Your task to perform on an android device: Go to Reddit.com Image 0: 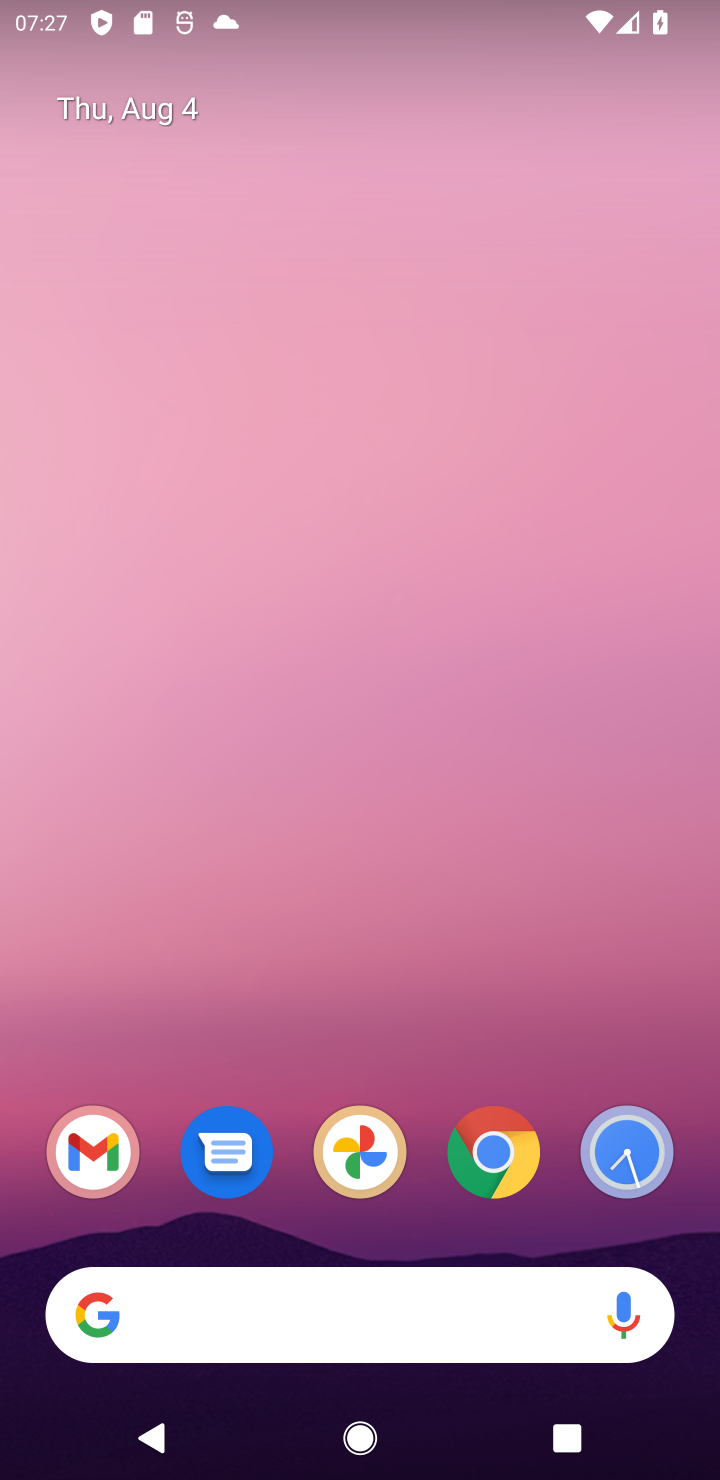
Step 0: click (501, 1156)
Your task to perform on an android device: Go to Reddit.com Image 1: 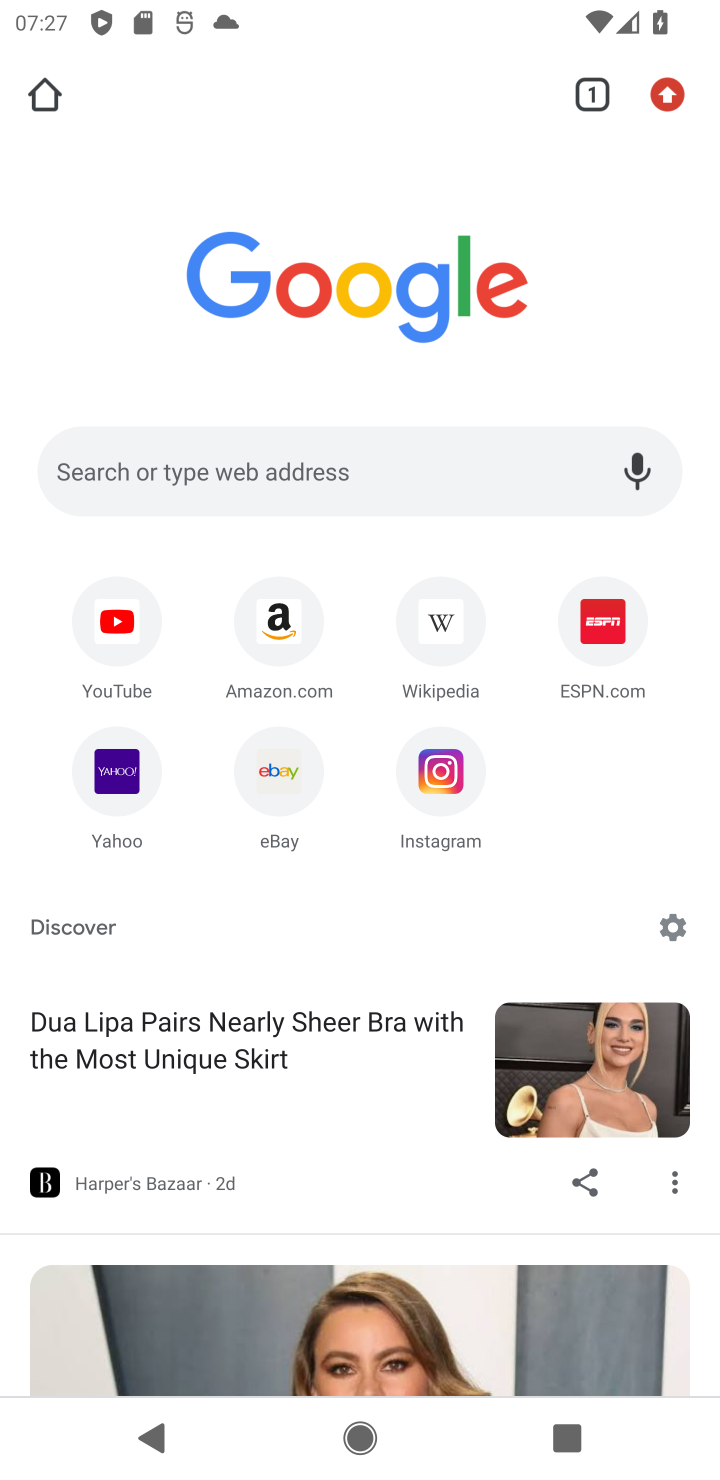
Step 1: click (389, 483)
Your task to perform on an android device: Go to Reddit.com Image 2: 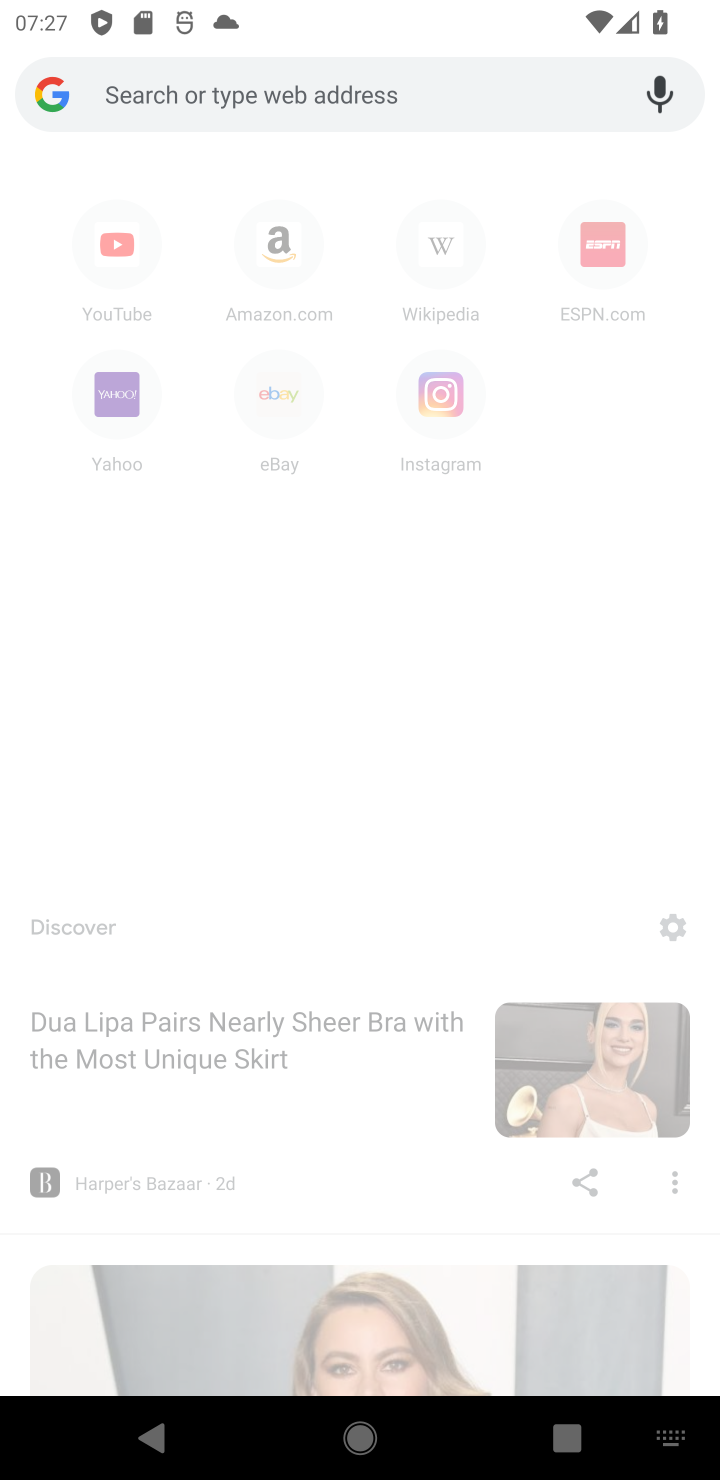
Step 2: type "Reddit.com"
Your task to perform on an android device: Go to Reddit.com Image 3: 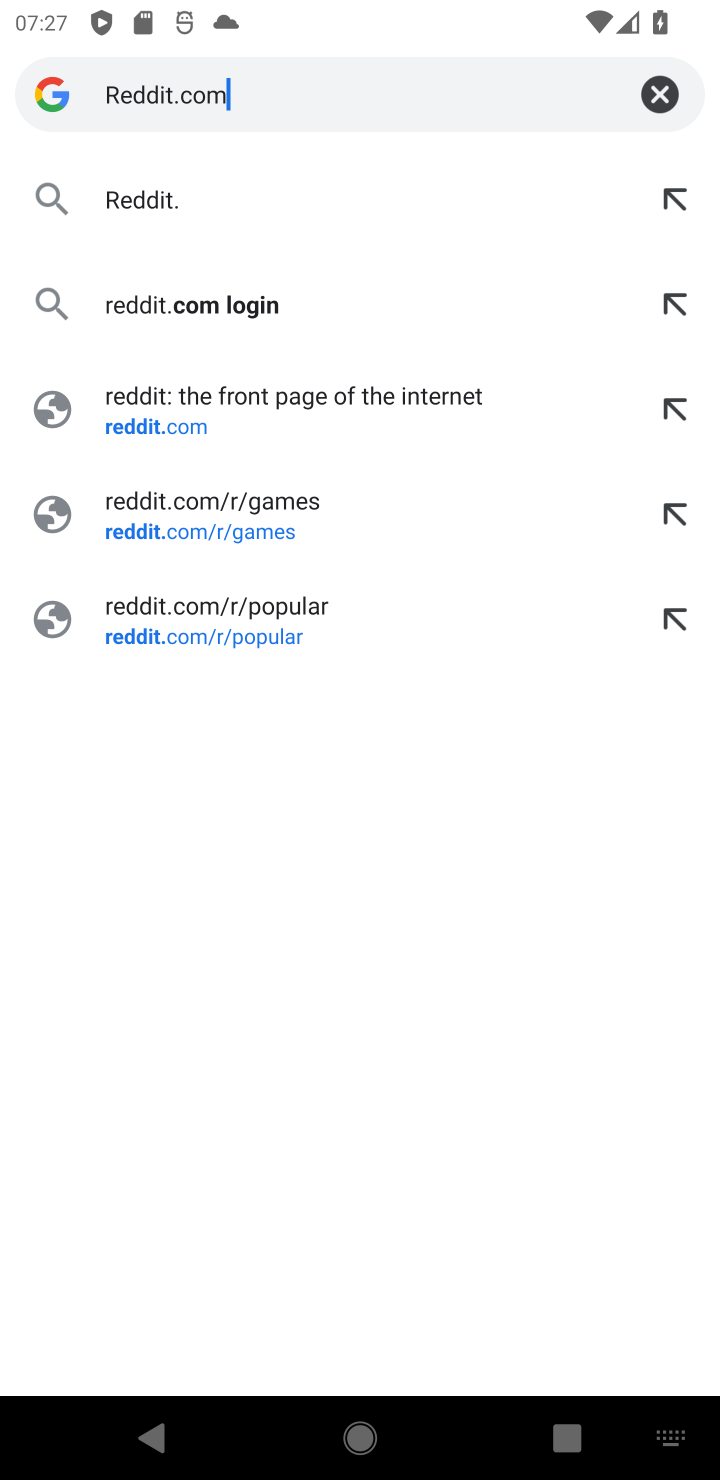
Step 3: type ""
Your task to perform on an android device: Go to Reddit.com Image 4: 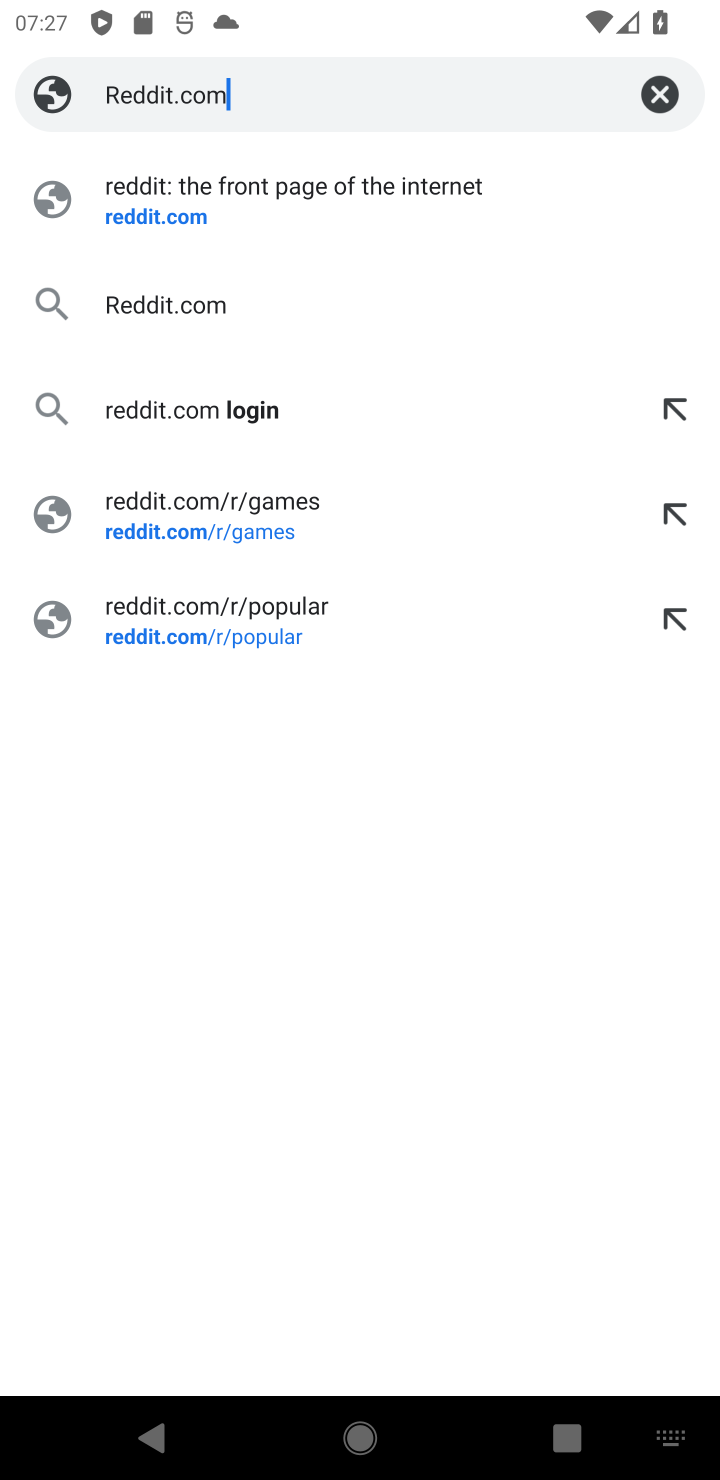
Step 4: click (141, 173)
Your task to perform on an android device: Go to Reddit.com Image 5: 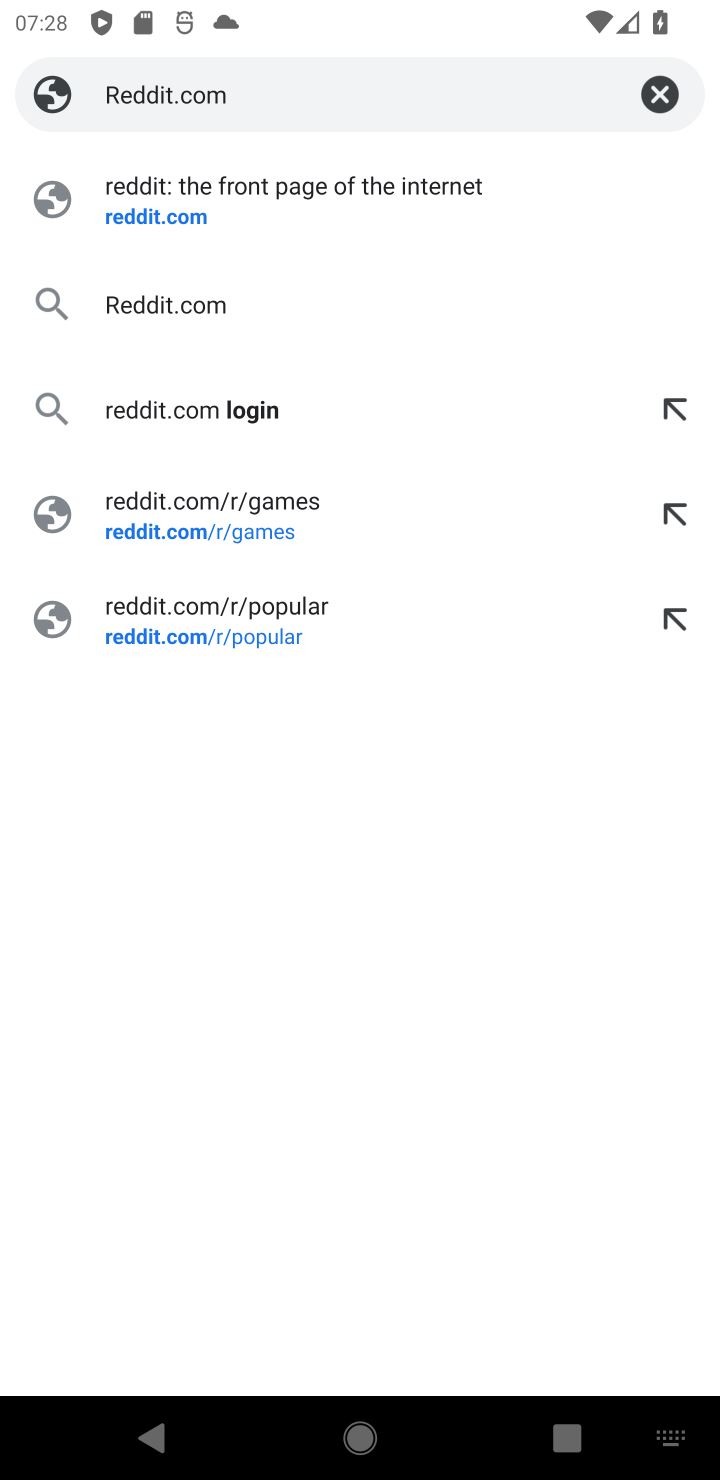
Step 5: click (156, 198)
Your task to perform on an android device: Go to Reddit.com Image 6: 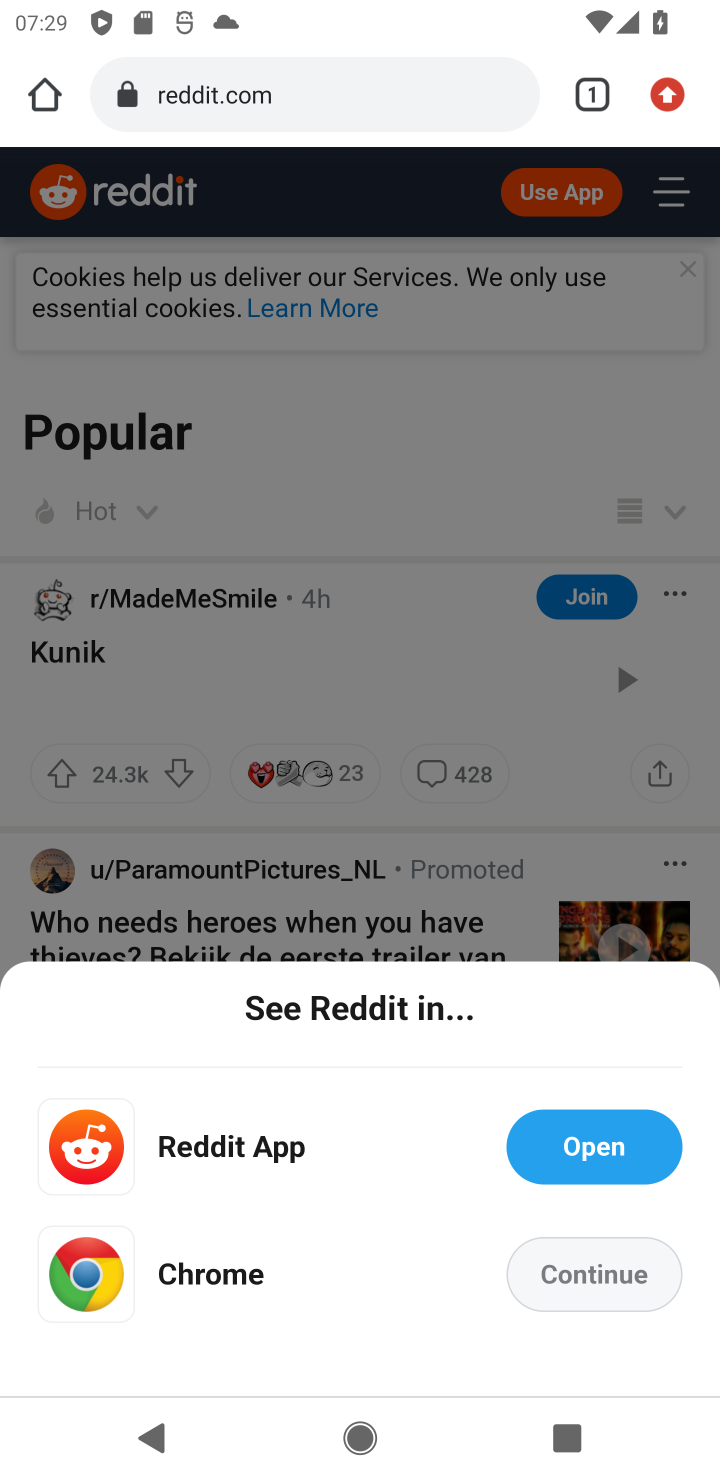
Step 6: task complete